Your task to perform on an android device: uninstall "Booking.com: Hotels and more" Image 0: 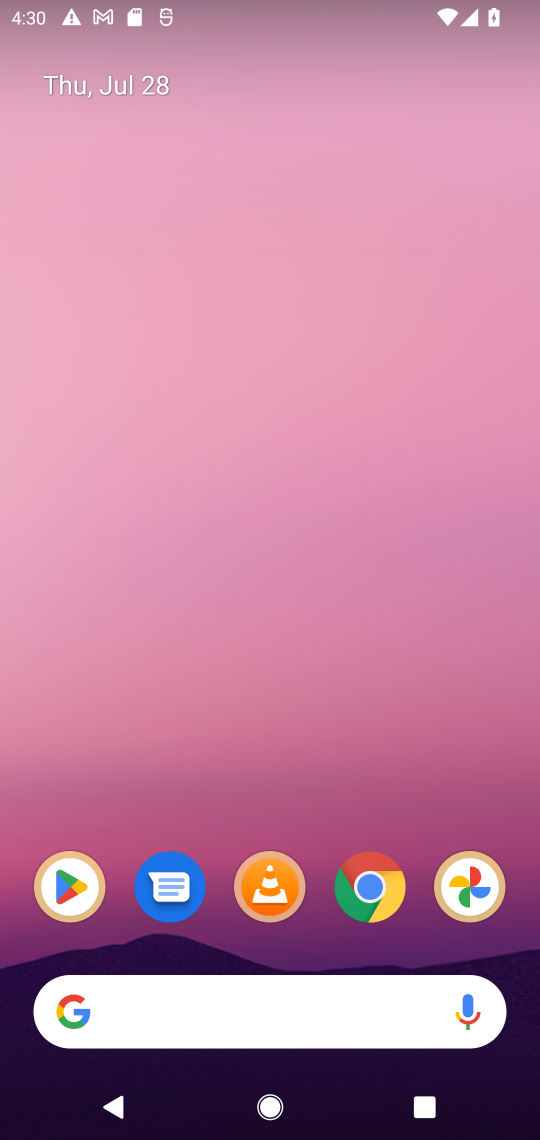
Step 0: click (92, 898)
Your task to perform on an android device: uninstall "Booking.com: Hotels and more" Image 1: 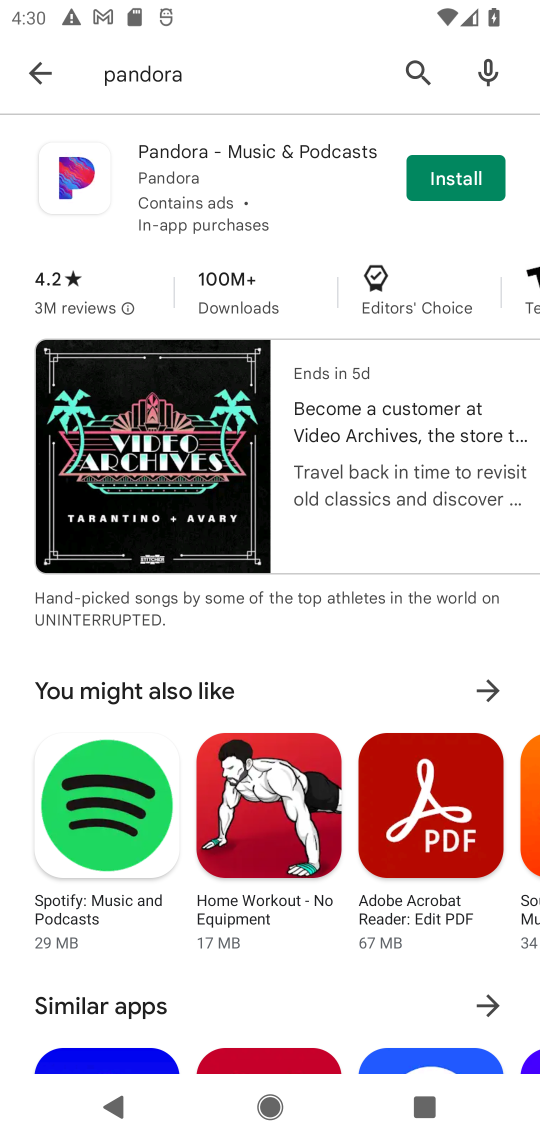
Step 1: click (220, 85)
Your task to perform on an android device: uninstall "Booking.com: Hotels and more" Image 2: 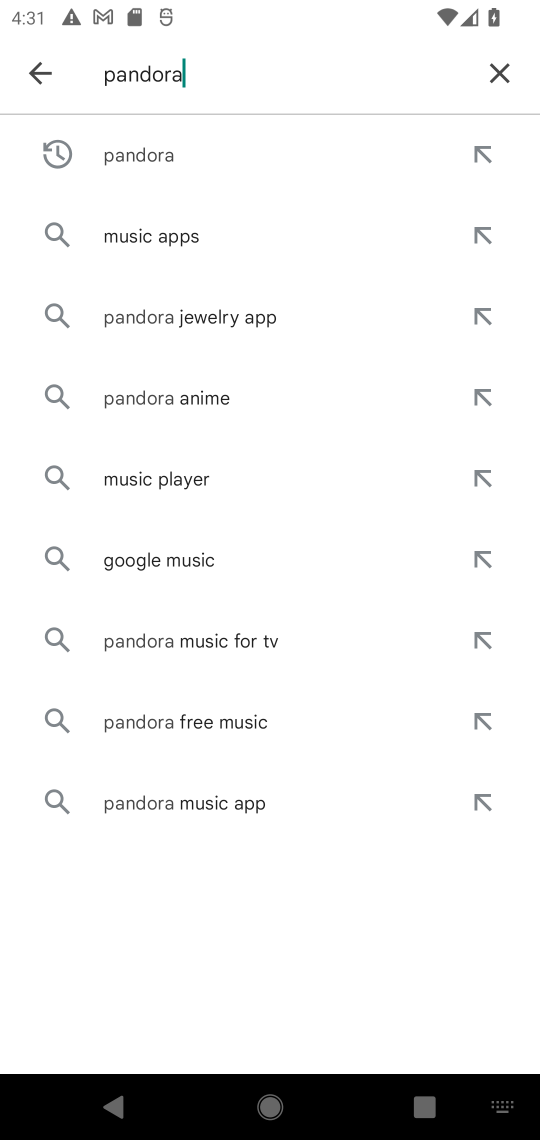
Step 2: click (478, 80)
Your task to perform on an android device: uninstall "Booking.com: Hotels and more" Image 3: 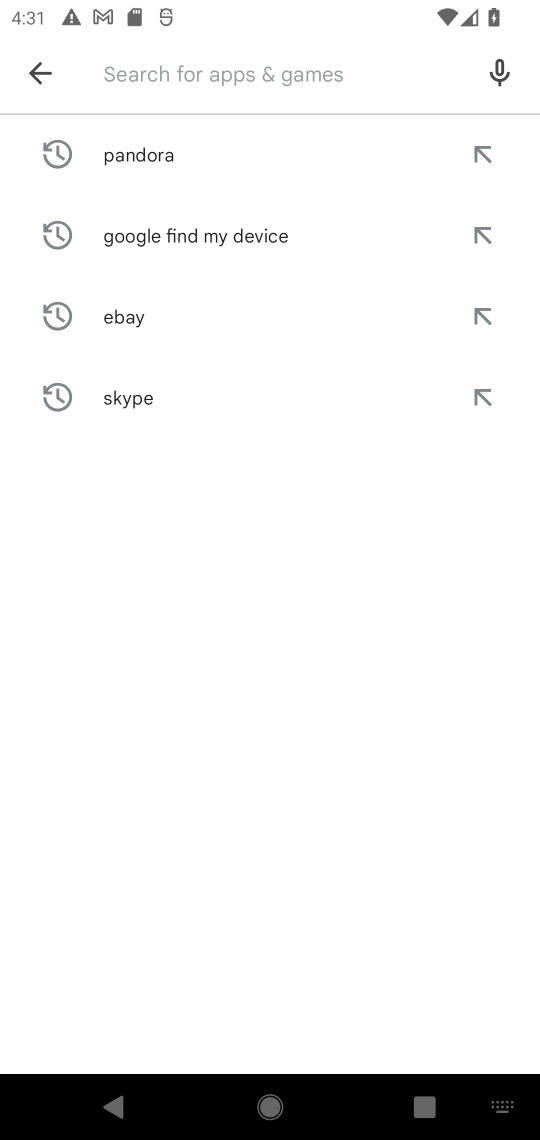
Step 3: type "Booking.com"
Your task to perform on an android device: uninstall "Booking.com: Hotels and more" Image 4: 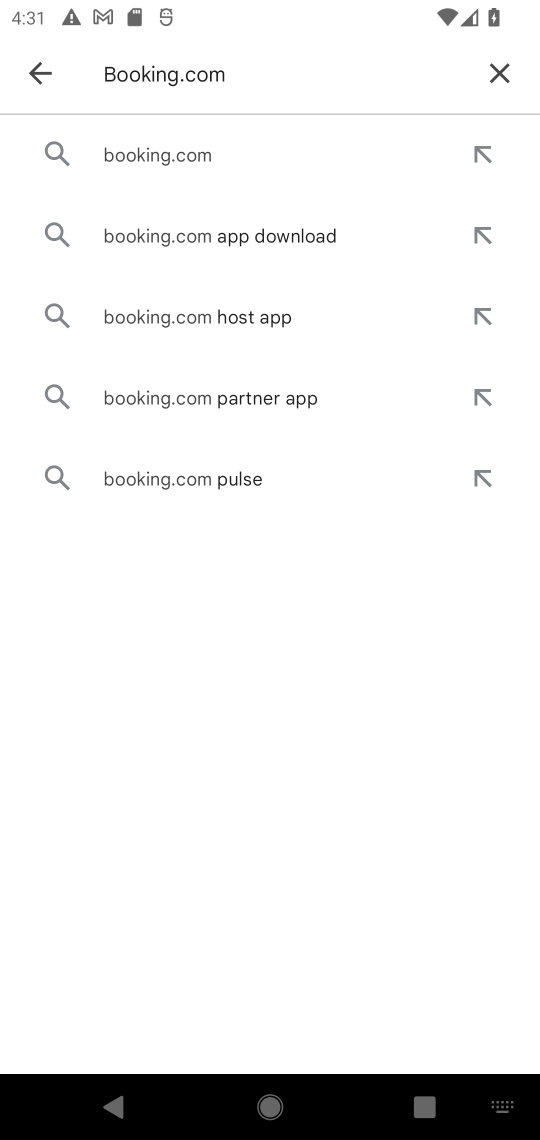
Step 4: click (186, 163)
Your task to perform on an android device: uninstall "Booking.com: Hotels and more" Image 5: 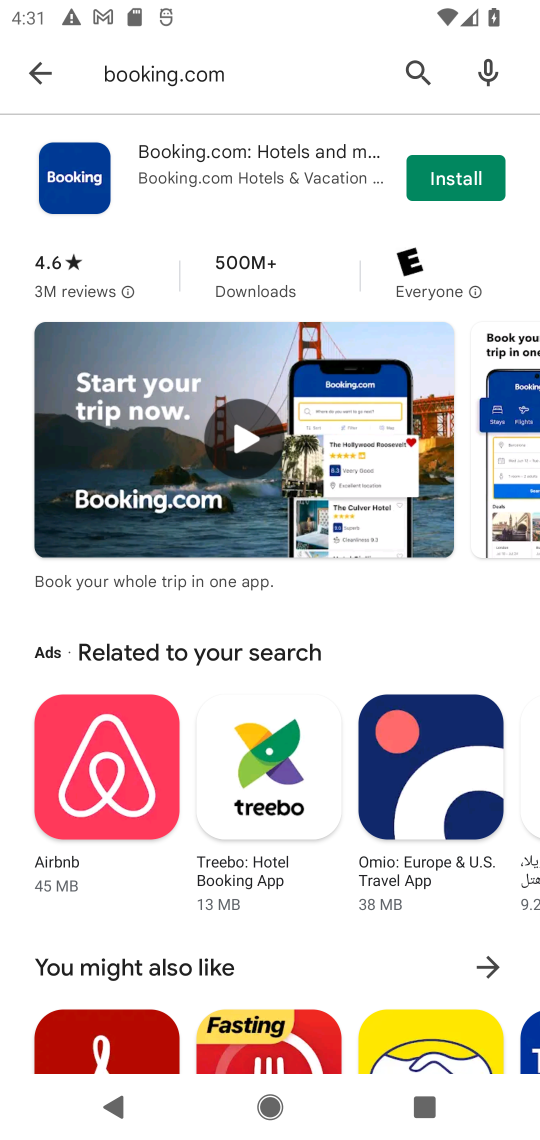
Step 5: task complete